Your task to perform on an android device: find photos in the google photos app Image 0: 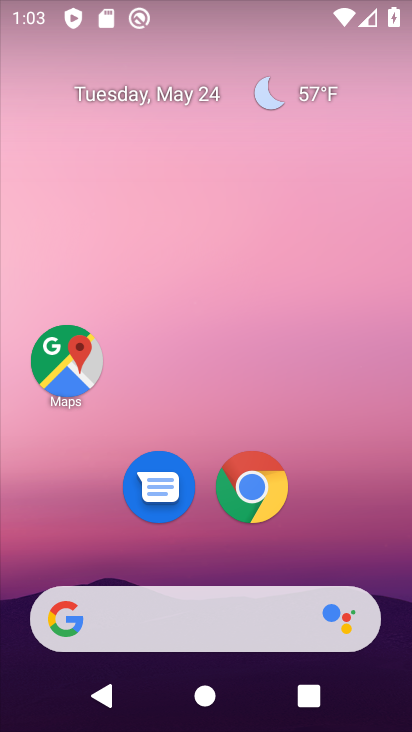
Step 0: drag from (221, 722) to (190, 34)
Your task to perform on an android device: find photos in the google photos app Image 1: 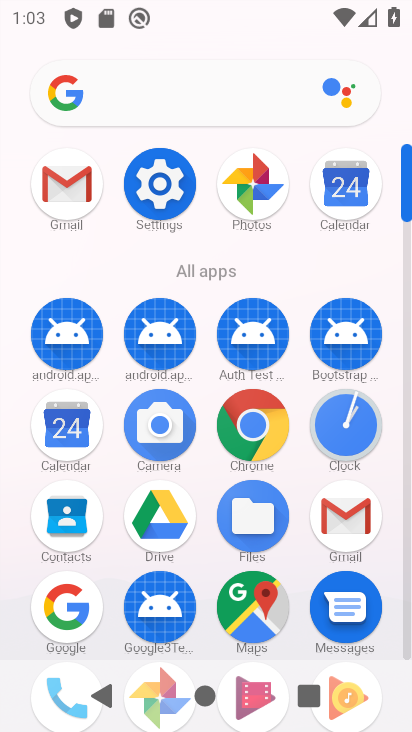
Step 1: click (244, 192)
Your task to perform on an android device: find photos in the google photos app Image 2: 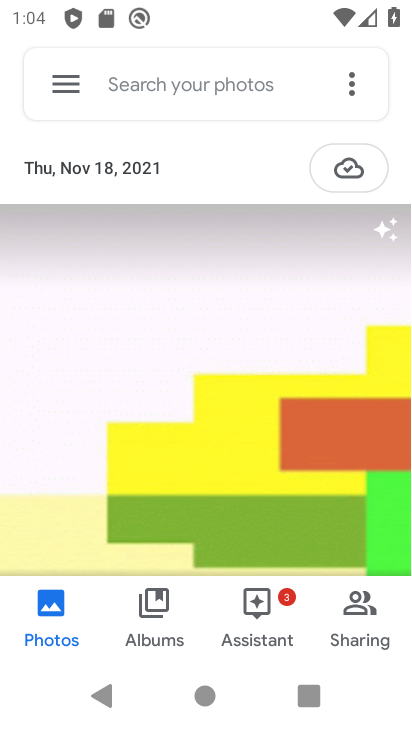
Step 2: task complete